Your task to perform on an android device: allow cookies in the chrome app Image 0: 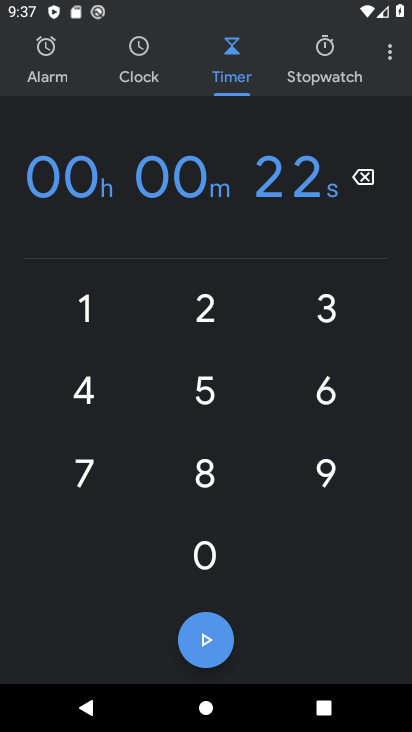
Step 0: press home button
Your task to perform on an android device: allow cookies in the chrome app Image 1: 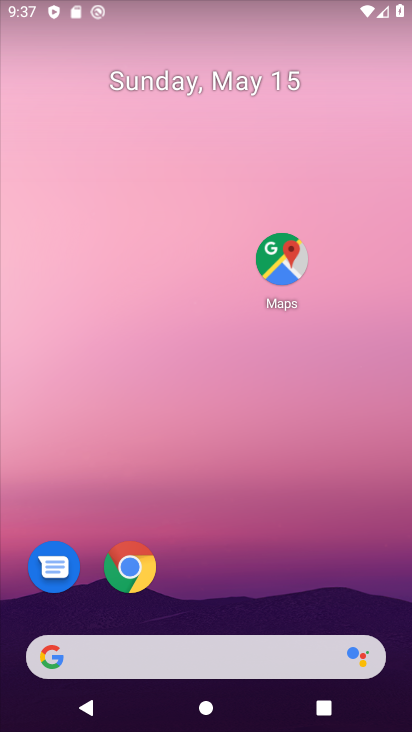
Step 1: click (123, 566)
Your task to perform on an android device: allow cookies in the chrome app Image 2: 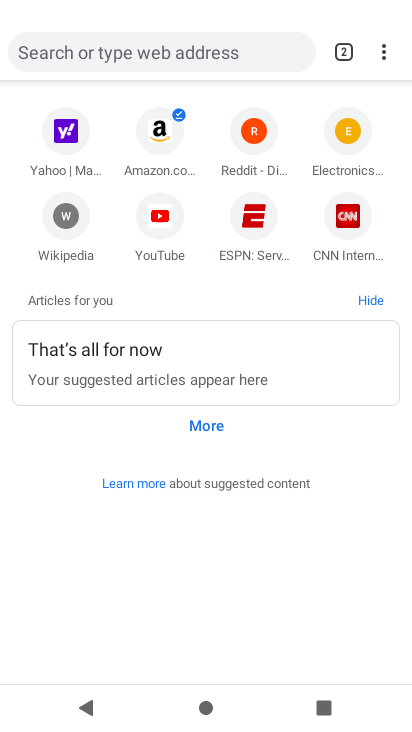
Step 2: click (378, 53)
Your task to perform on an android device: allow cookies in the chrome app Image 3: 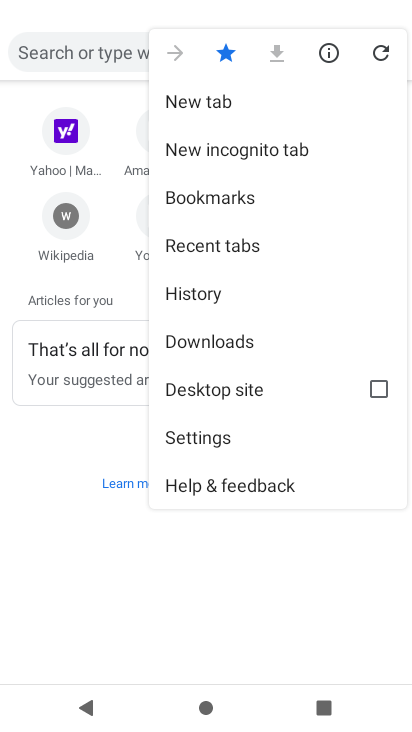
Step 3: click (213, 448)
Your task to perform on an android device: allow cookies in the chrome app Image 4: 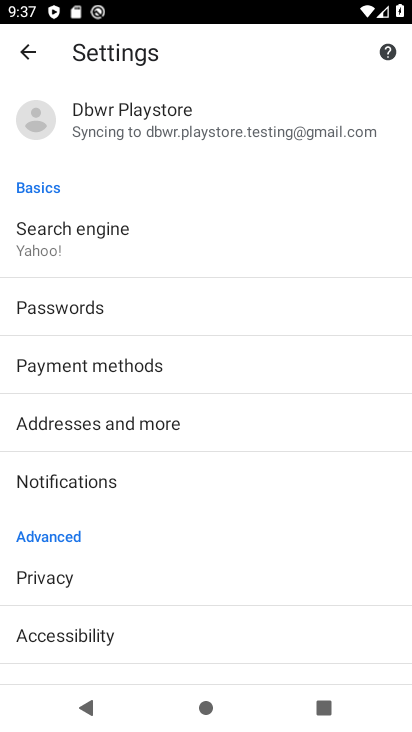
Step 4: drag from (207, 587) to (176, 213)
Your task to perform on an android device: allow cookies in the chrome app Image 5: 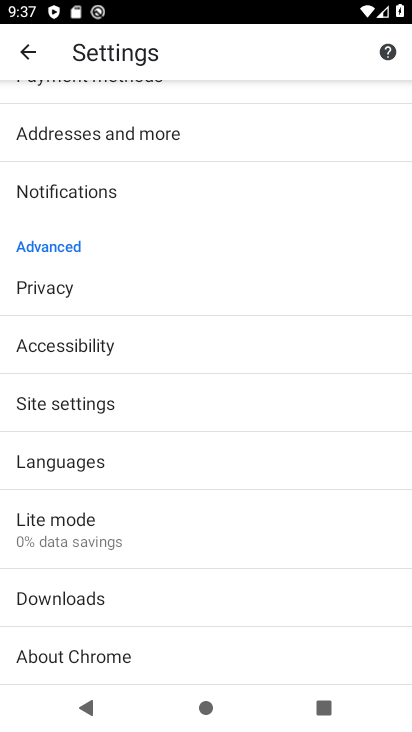
Step 5: drag from (205, 553) to (183, 227)
Your task to perform on an android device: allow cookies in the chrome app Image 6: 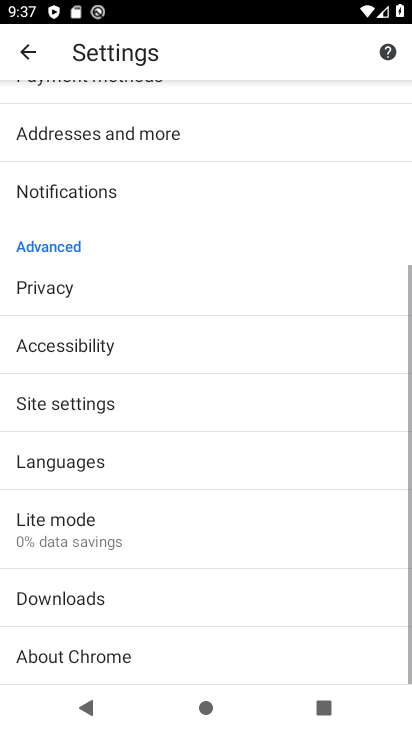
Step 6: click (114, 401)
Your task to perform on an android device: allow cookies in the chrome app Image 7: 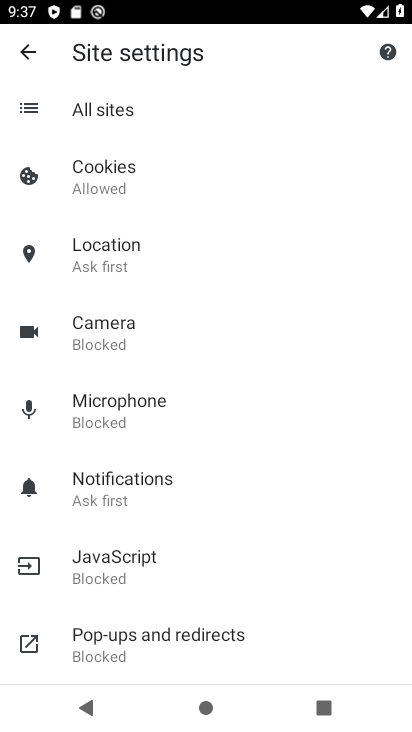
Step 7: drag from (270, 585) to (248, 516)
Your task to perform on an android device: allow cookies in the chrome app Image 8: 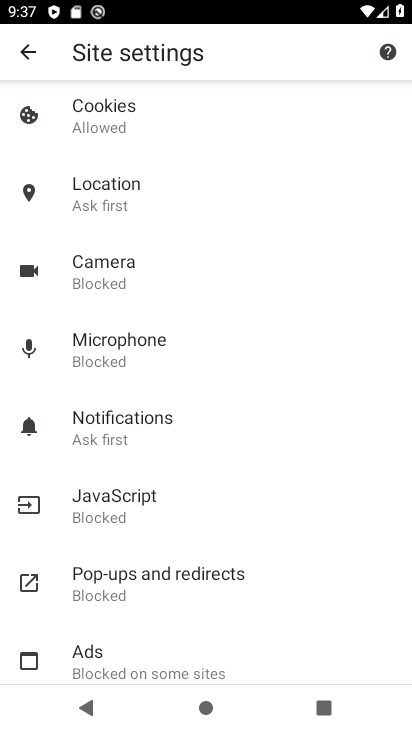
Step 8: click (152, 115)
Your task to perform on an android device: allow cookies in the chrome app Image 9: 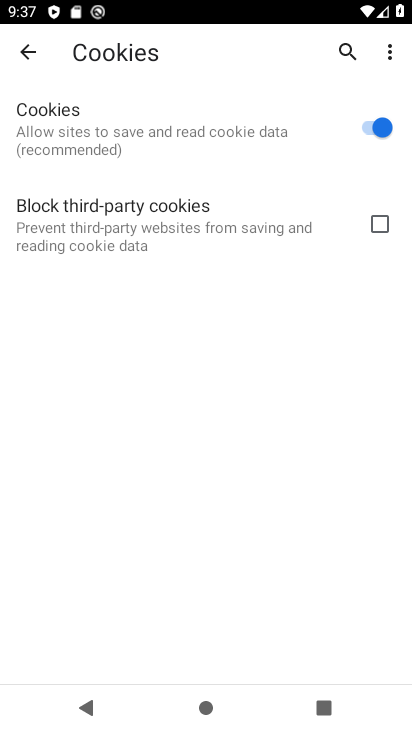
Step 9: task complete